Your task to perform on an android device: turn on airplane mode Image 0: 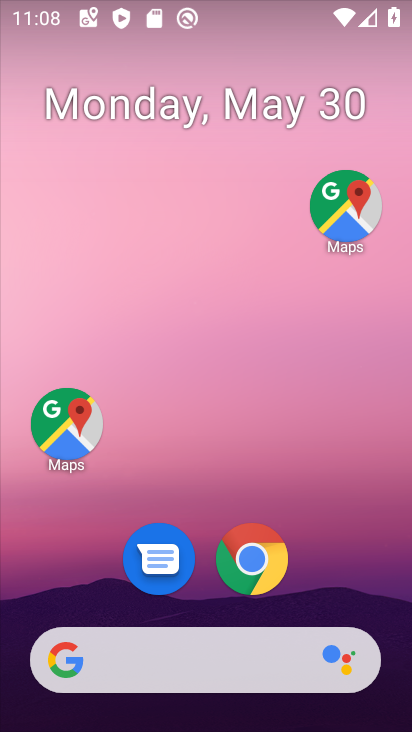
Step 0: drag from (341, 524) to (249, 144)
Your task to perform on an android device: turn on airplane mode Image 1: 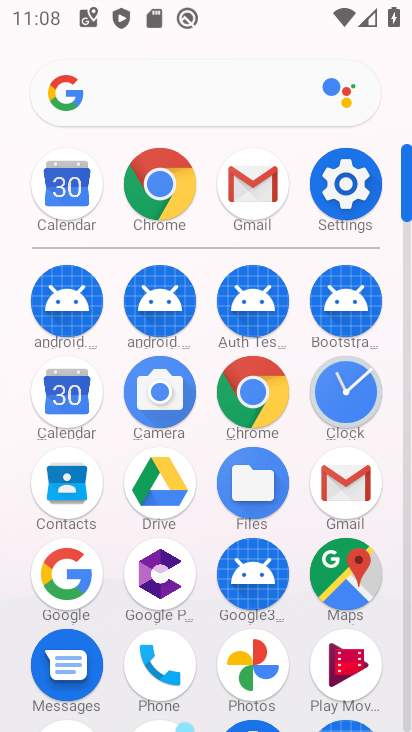
Step 1: click (348, 182)
Your task to perform on an android device: turn on airplane mode Image 2: 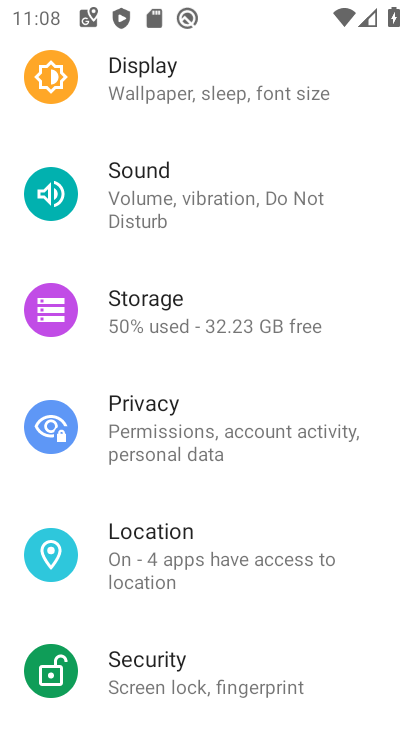
Step 2: drag from (261, 170) to (314, 728)
Your task to perform on an android device: turn on airplane mode Image 3: 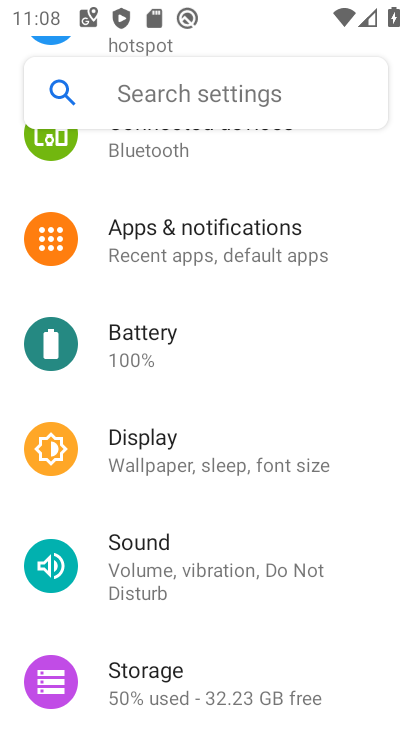
Step 3: drag from (198, 241) to (255, 709)
Your task to perform on an android device: turn on airplane mode Image 4: 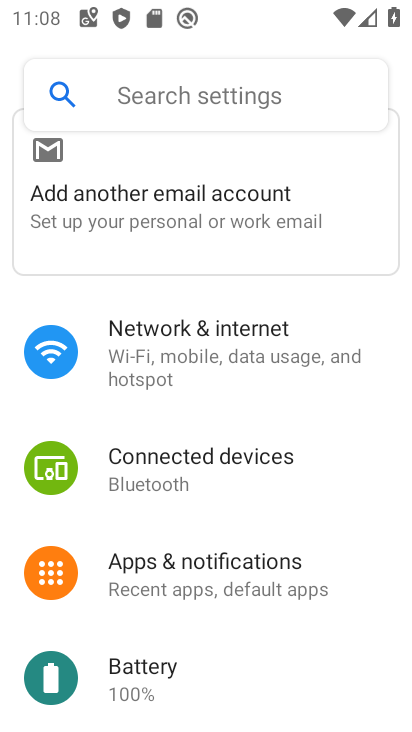
Step 4: click (204, 351)
Your task to perform on an android device: turn on airplane mode Image 5: 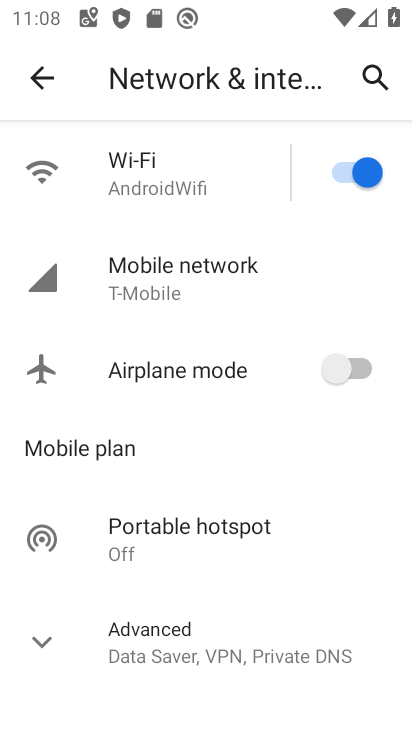
Step 5: click (355, 380)
Your task to perform on an android device: turn on airplane mode Image 6: 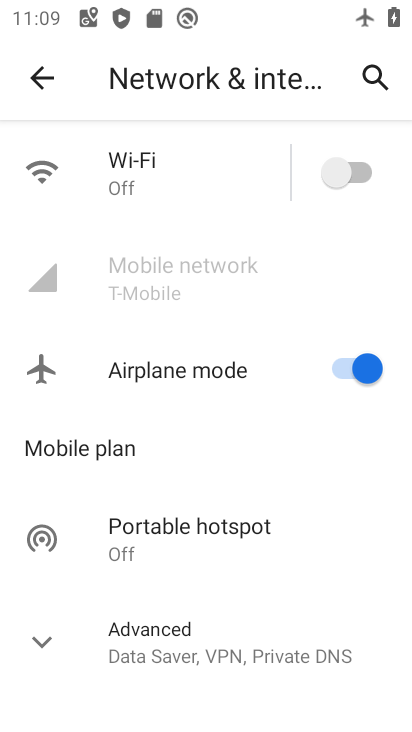
Step 6: task complete